Your task to perform on an android device: change the clock display to analog Image 0: 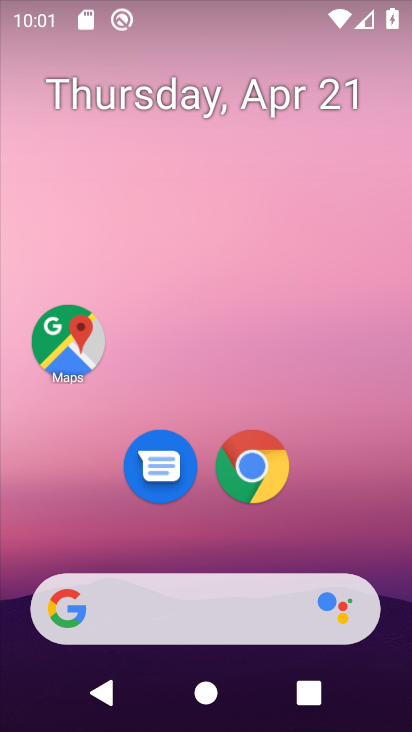
Step 0: drag from (370, 499) to (364, 0)
Your task to perform on an android device: change the clock display to analog Image 1: 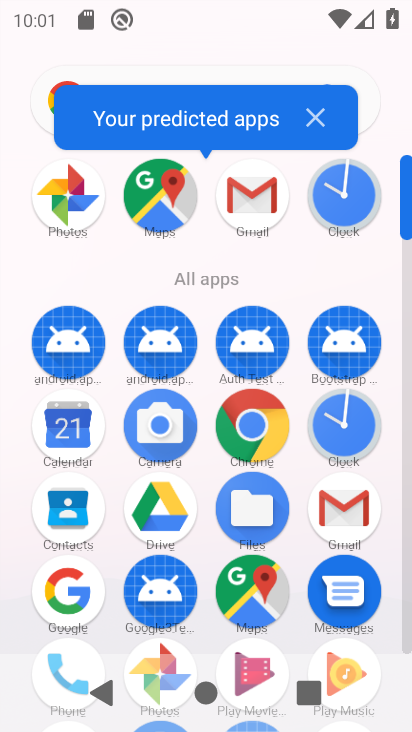
Step 1: drag from (296, 620) to (354, 292)
Your task to perform on an android device: change the clock display to analog Image 2: 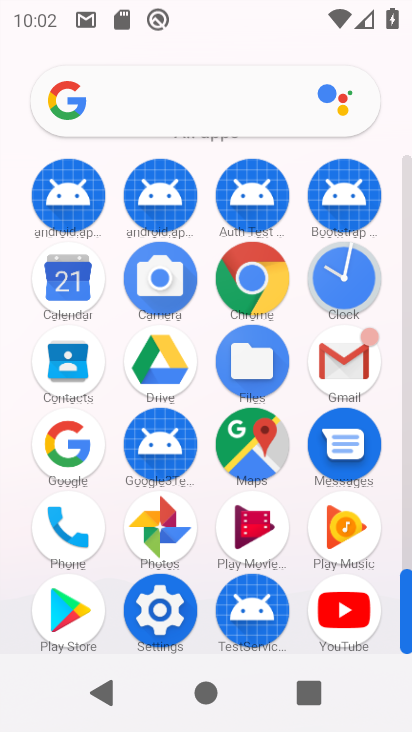
Step 2: click (148, 613)
Your task to perform on an android device: change the clock display to analog Image 3: 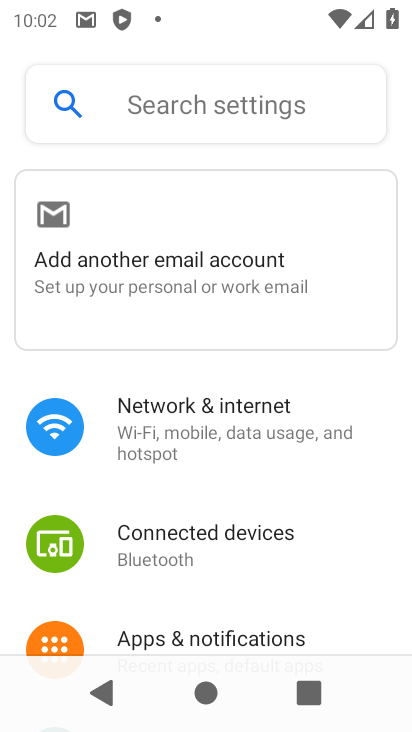
Step 3: drag from (358, 537) to (374, 303)
Your task to perform on an android device: change the clock display to analog Image 4: 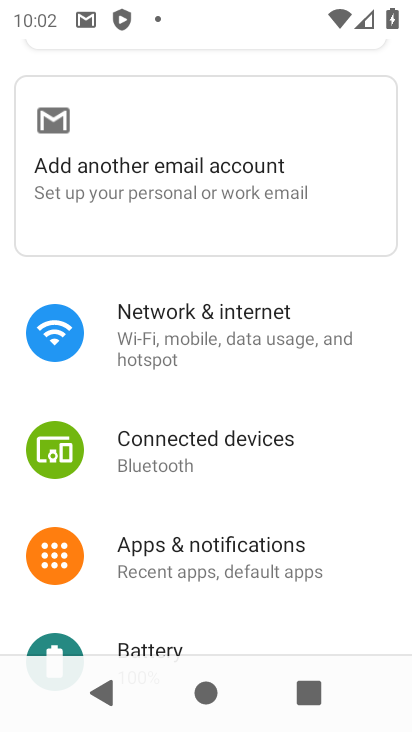
Step 4: press home button
Your task to perform on an android device: change the clock display to analog Image 5: 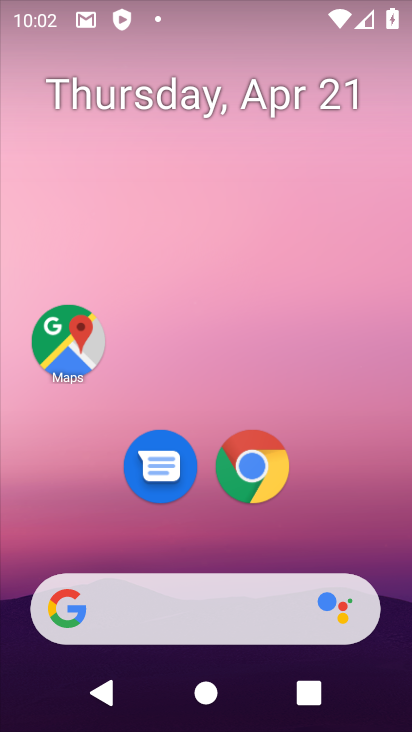
Step 5: drag from (327, 526) to (408, 126)
Your task to perform on an android device: change the clock display to analog Image 6: 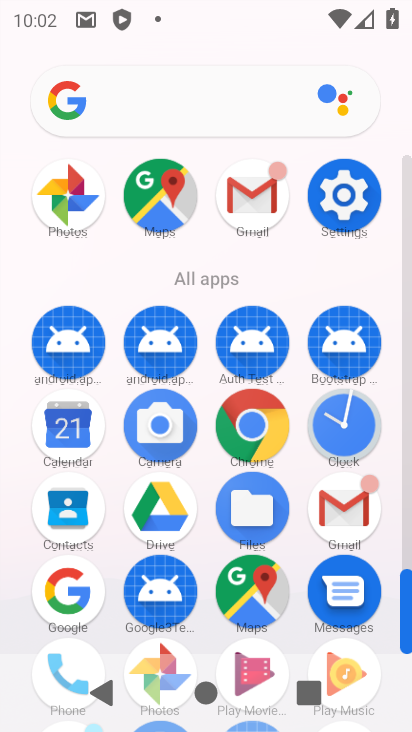
Step 6: click (348, 425)
Your task to perform on an android device: change the clock display to analog Image 7: 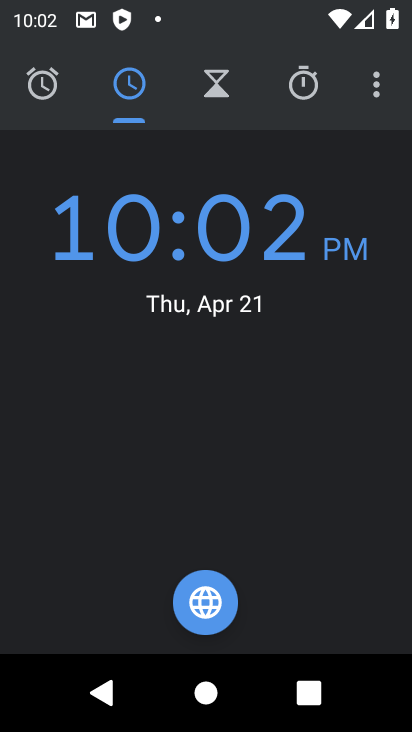
Step 7: click (384, 78)
Your task to perform on an android device: change the clock display to analog Image 8: 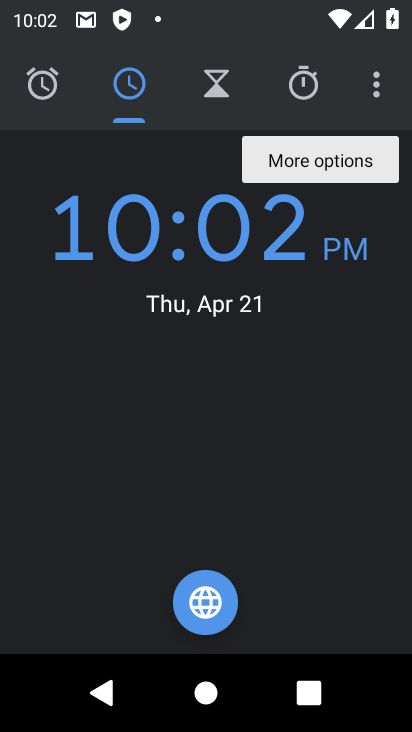
Step 8: click (321, 166)
Your task to perform on an android device: change the clock display to analog Image 9: 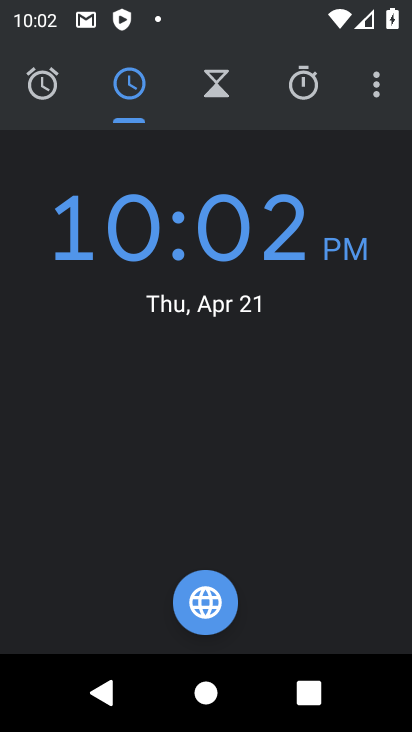
Step 9: click (378, 86)
Your task to perform on an android device: change the clock display to analog Image 10: 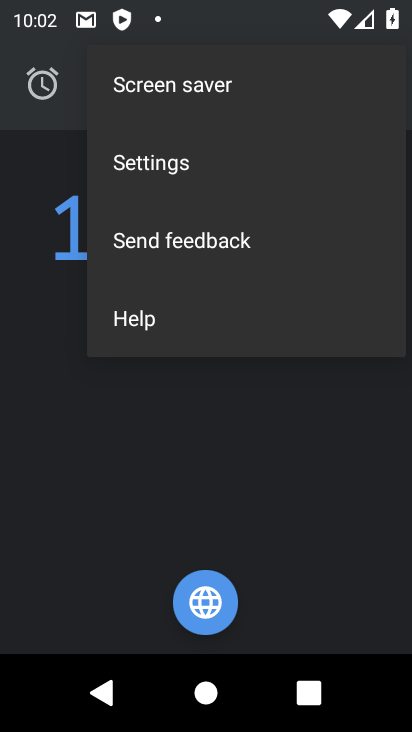
Step 10: click (182, 168)
Your task to perform on an android device: change the clock display to analog Image 11: 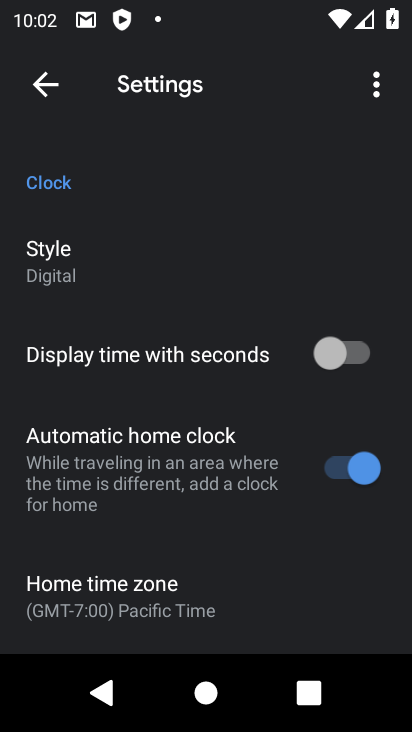
Step 11: click (42, 266)
Your task to perform on an android device: change the clock display to analog Image 12: 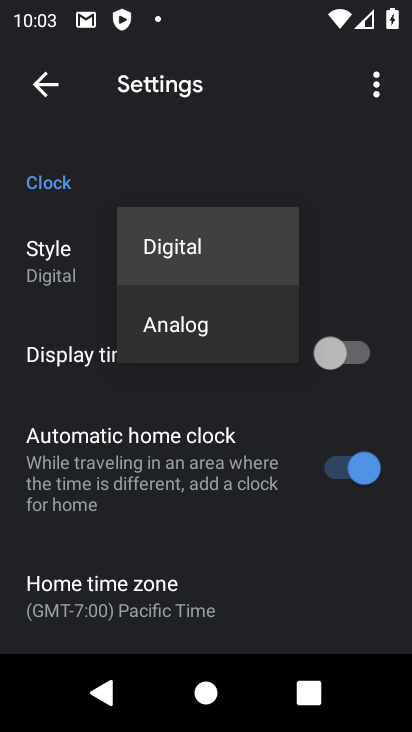
Step 12: click (184, 331)
Your task to perform on an android device: change the clock display to analog Image 13: 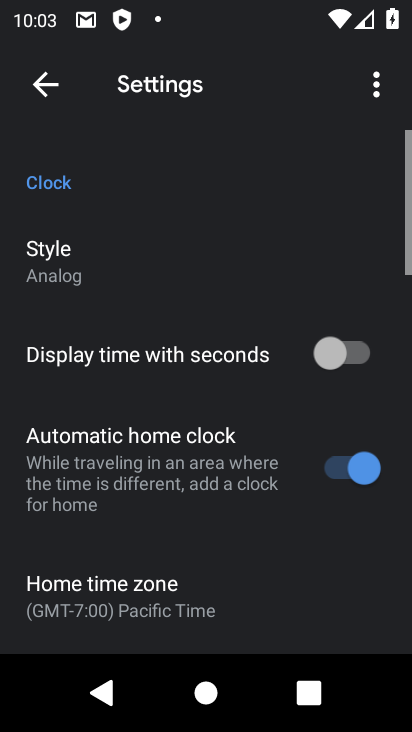
Step 13: task complete